Your task to perform on an android device: make emails show in primary in the gmail app Image 0: 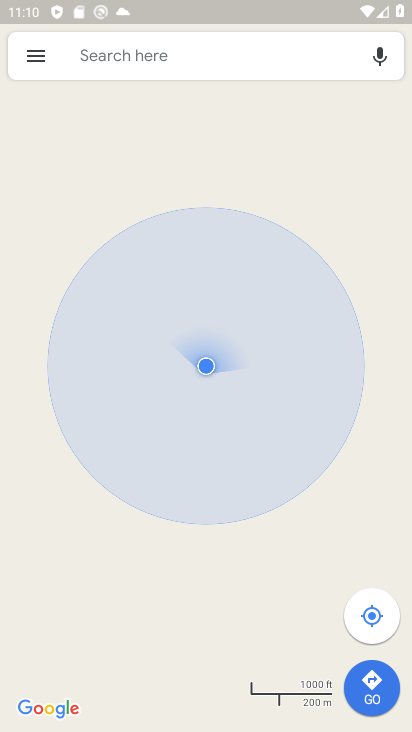
Step 0: press home button
Your task to perform on an android device: make emails show in primary in the gmail app Image 1: 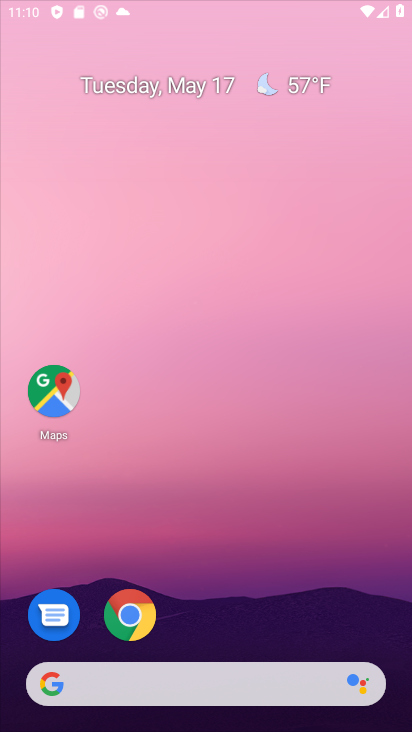
Step 1: drag from (378, 651) to (239, 70)
Your task to perform on an android device: make emails show in primary in the gmail app Image 2: 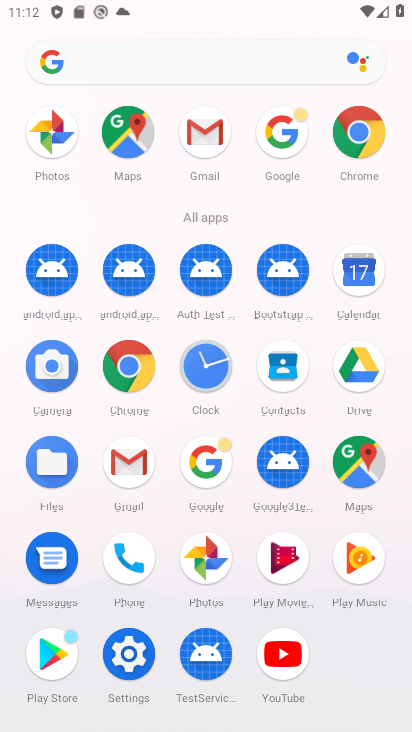
Step 2: click (141, 463)
Your task to perform on an android device: make emails show in primary in the gmail app Image 3: 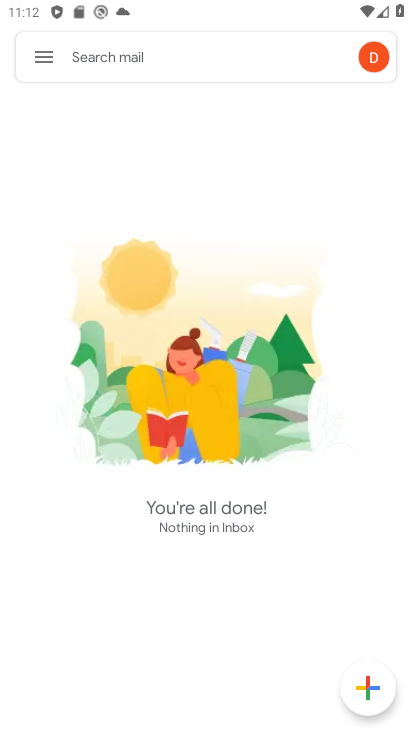
Step 3: task complete